Your task to perform on an android device: change the clock style Image 0: 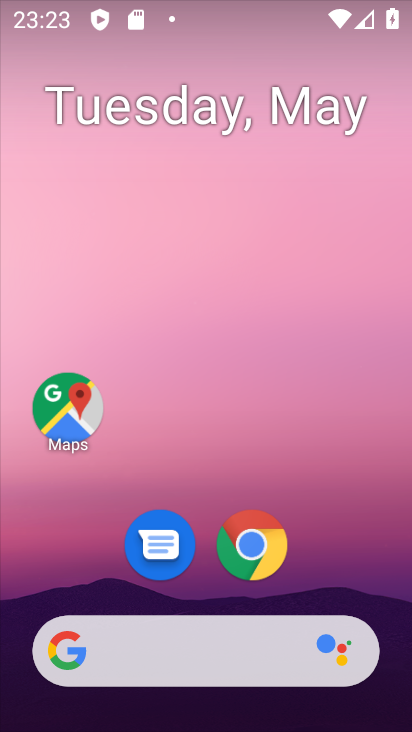
Step 0: drag from (194, 582) to (232, 219)
Your task to perform on an android device: change the clock style Image 1: 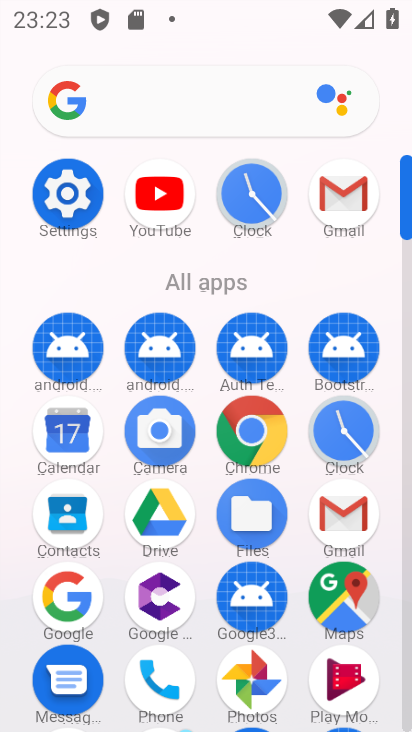
Step 1: click (349, 428)
Your task to perform on an android device: change the clock style Image 2: 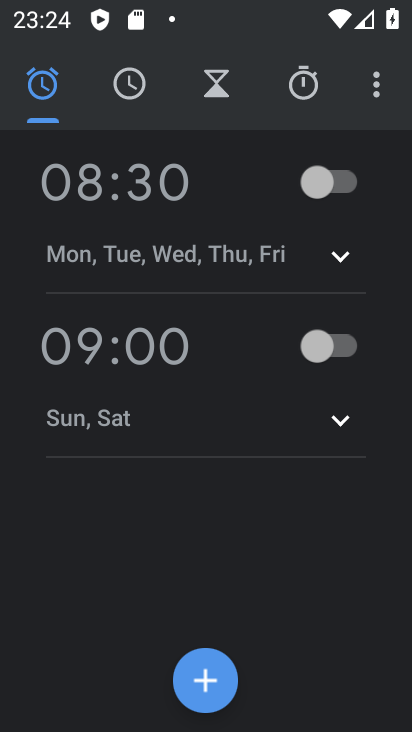
Step 2: click (375, 95)
Your task to perform on an android device: change the clock style Image 3: 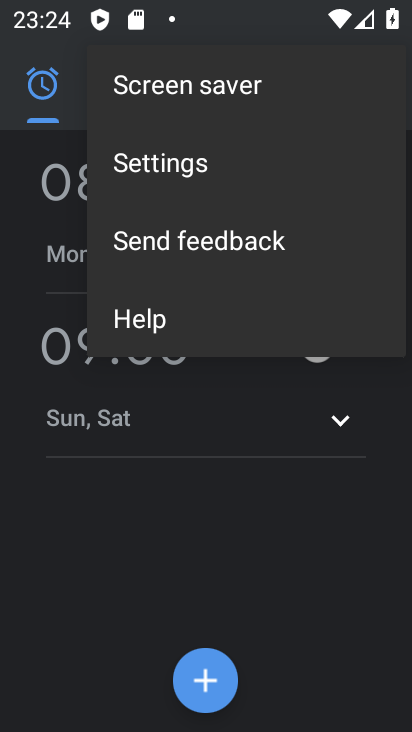
Step 3: click (190, 165)
Your task to perform on an android device: change the clock style Image 4: 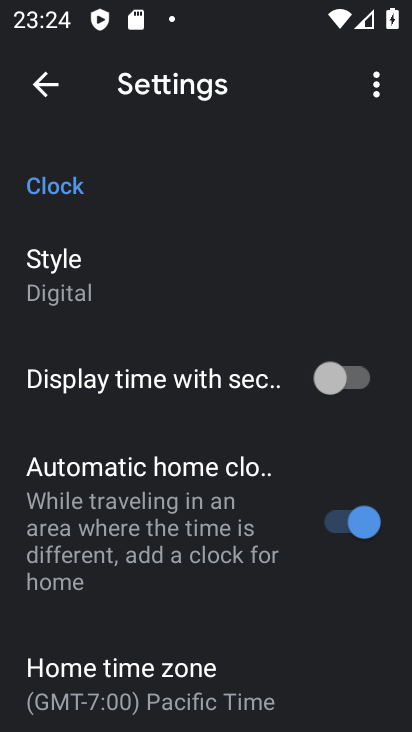
Step 4: click (100, 278)
Your task to perform on an android device: change the clock style Image 5: 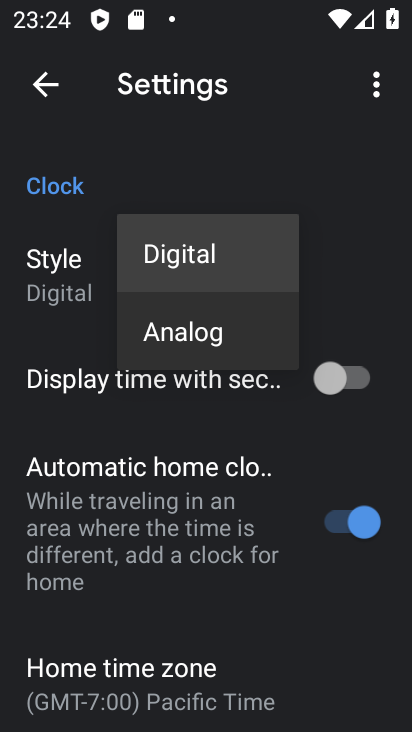
Step 5: click (187, 353)
Your task to perform on an android device: change the clock style Image 6: 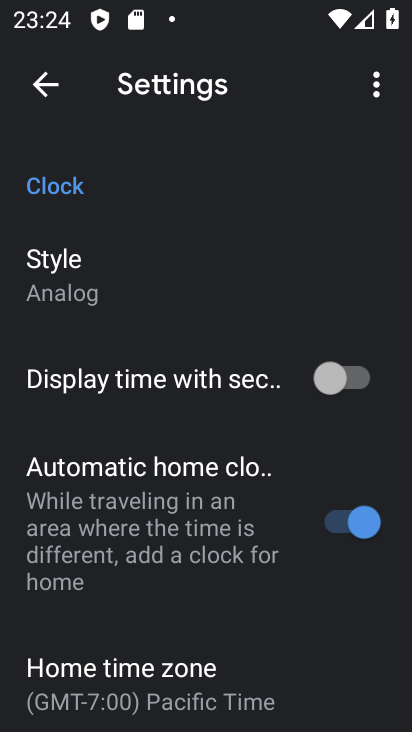
Step 6: task complete